Your task to perform on an android device: delete the emails in spam in the gmail app Image 0: 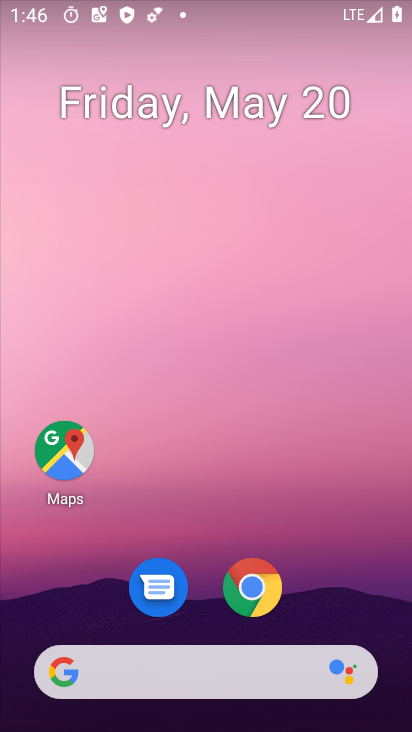
Step 0: drag from (201, 589) to (226, 203)
Your task to perform on an android device: delete the emails in spam in the gmail app Image 1: 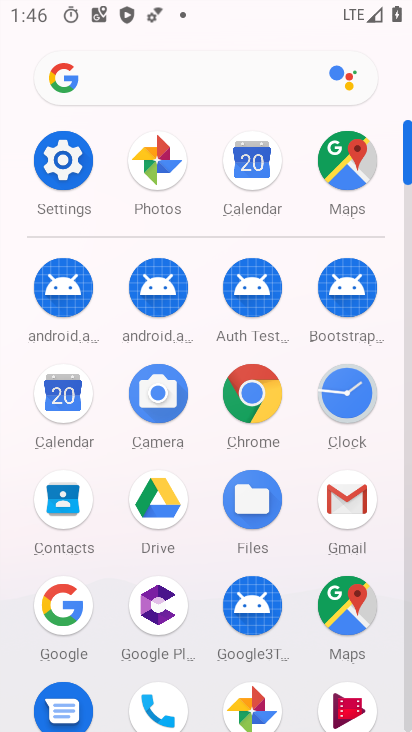
Step 1: click (345, 494)
Your task to perform on an android device: delete the emails in spam in the gmail app Image 2: 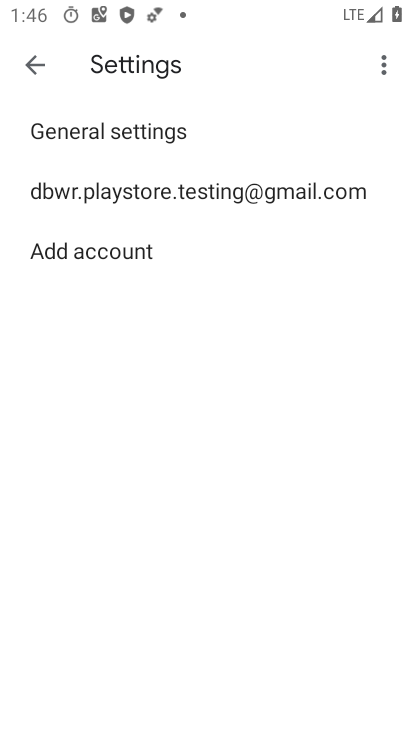
Step 2: click (241, 208)
Your task to perform on an android device: delete the emails in spam in the gmail app Image 3: 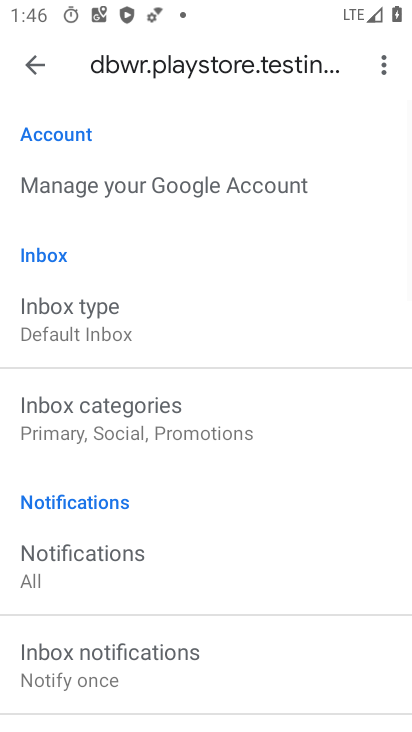
Step 3: click (31, 58)
Your task to perform on an android device: delete the emails in spam in the gmail app Image 4: 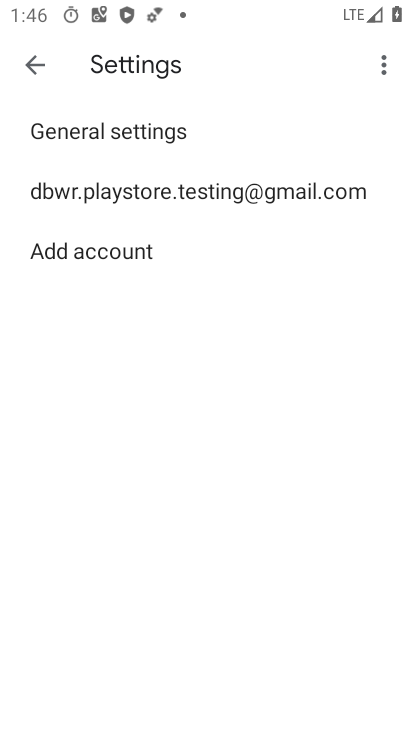
Step 4: click (36, 63)
Your task to perform on an android device: delete the emails in spam in the gmail app Image 5: 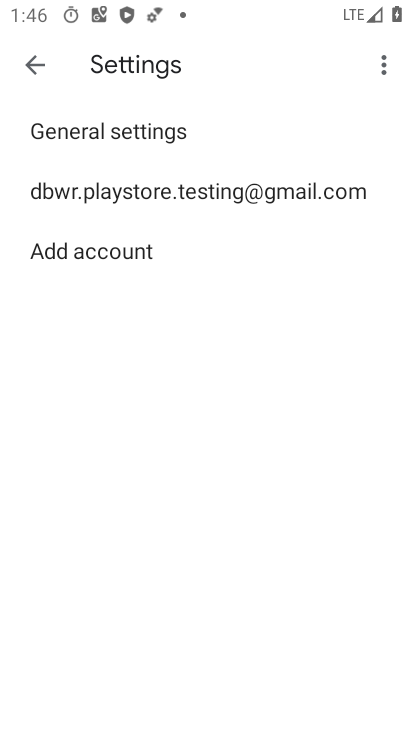
Step 5: click (37, 64)
Your task to perform on an android device: delete the emails in spam in the gmail app Image 6: 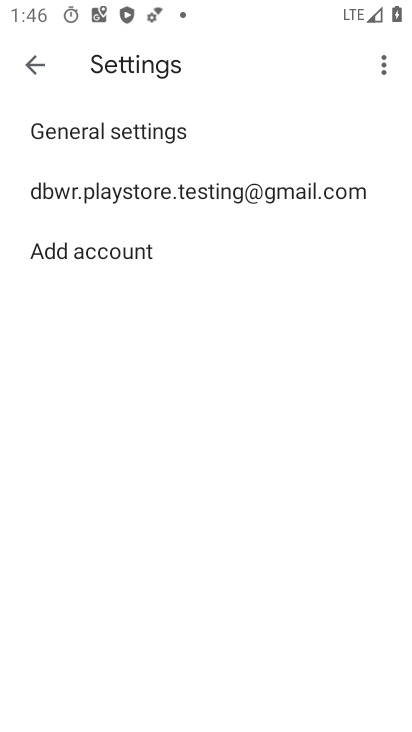
Step 6: click (37, 64)
Your task to perform on an android device: delete the emails in spam in the gmail app Image 7: 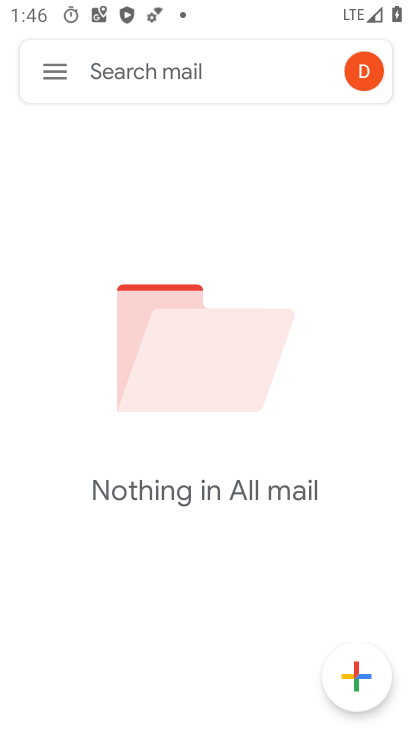
Step 7: click (45, 68)
Your task to perform on an android device: delete the emails in spam in the gmail app Image 8: 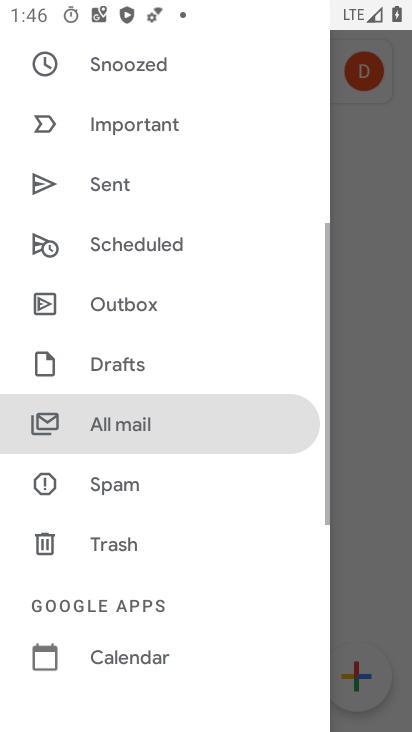
Step 8: click (154, 478)
Your task to perform on an android device: delete the emails in spam in the gmail app Image 9: 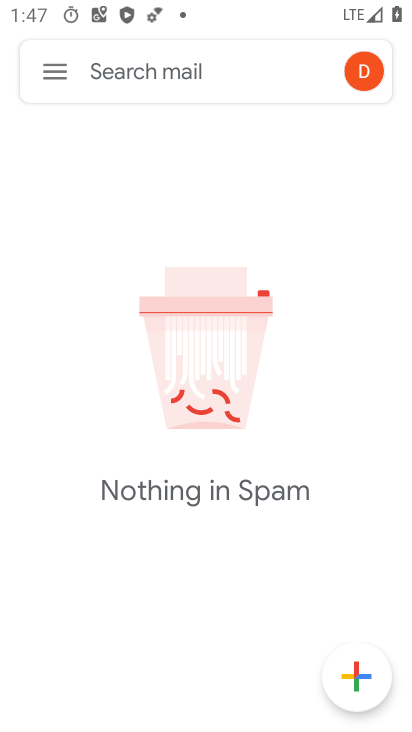
Step 9: task complete